Your task to perform on an android device: Check the weather Image 0: 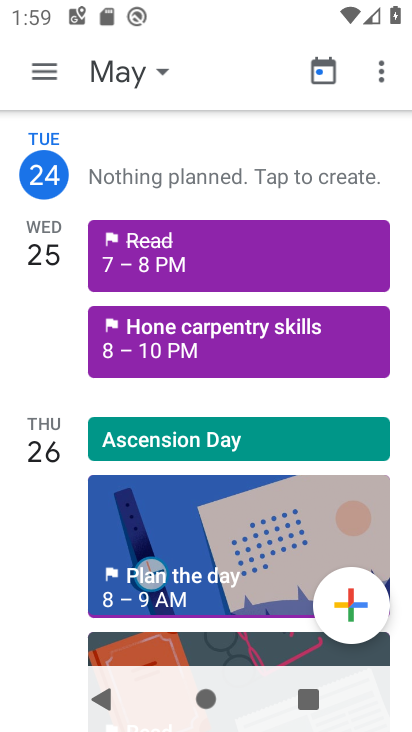
Step 0: press home button
Your task to perform on an android device: Check the weather Image 1: 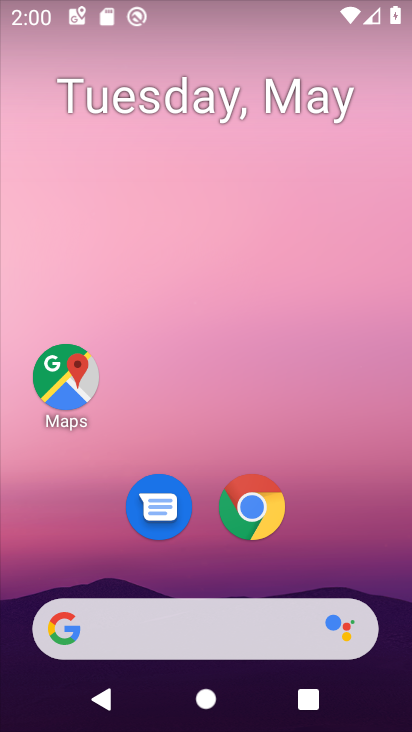
Step 1: drag from (206, 561) to (215, 122)
Your task to perform on an android device: Check the weather Image 2: 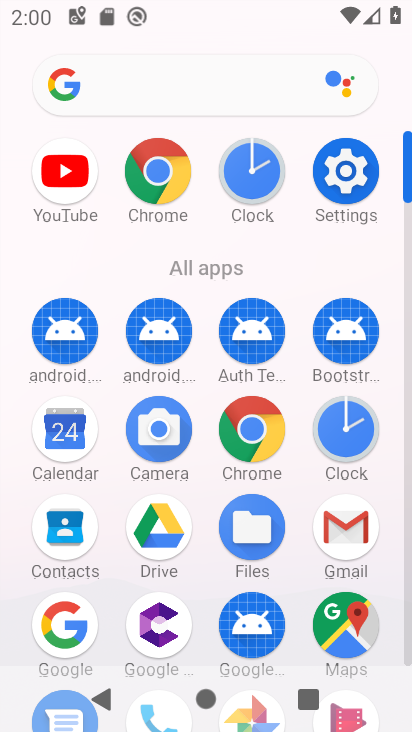
Step 2: click (80, 610)
Your task to perform on an android device: Check the weather Image 3: 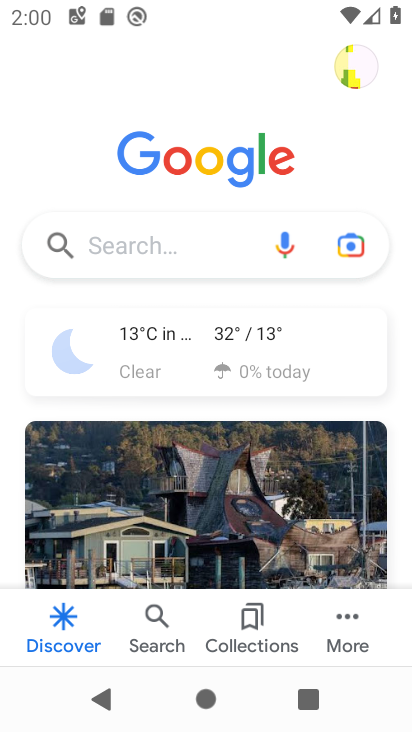
Step 3: click (202, 348)
Your task to perform on an android device: Check the weather Image 4: 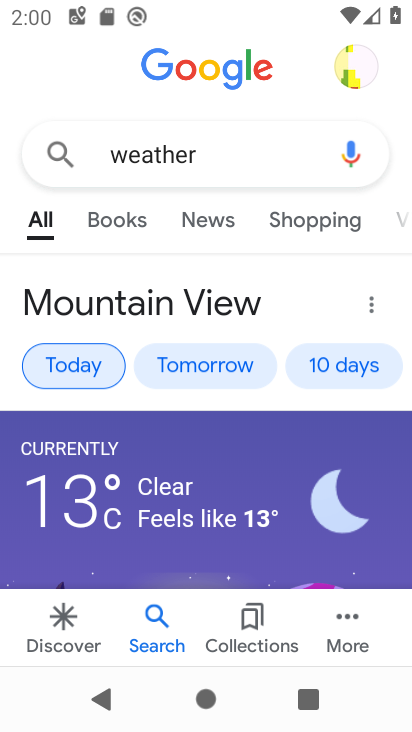
Step 4: task complete